Your task to perform on an android device: Play the last video I watched on Youtube Image 0: 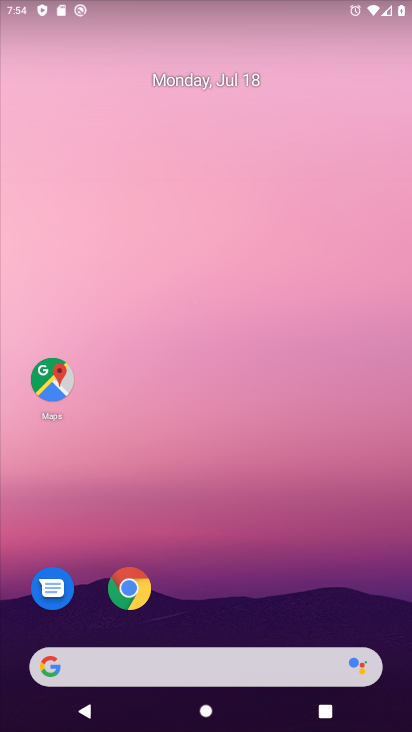
Step 0: drag from (201, 614) to (205, 70)
Your task to perform on an android device: Play the last video I watched on Youtube Image 1: 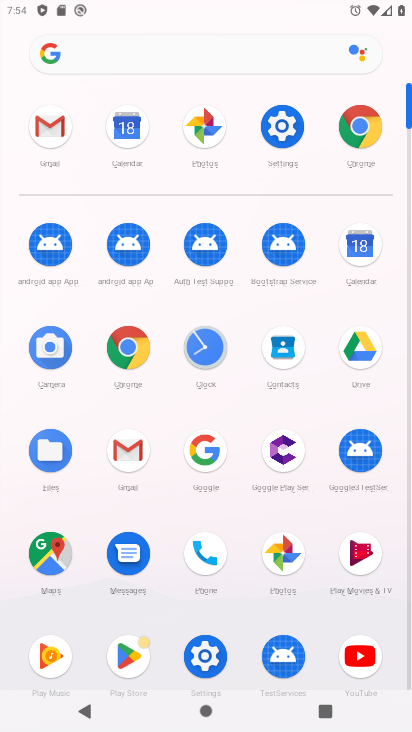
Step 1: click (352, 648)
Your task to perform on an android device: Play the last video I watched on Youtube Image 2: 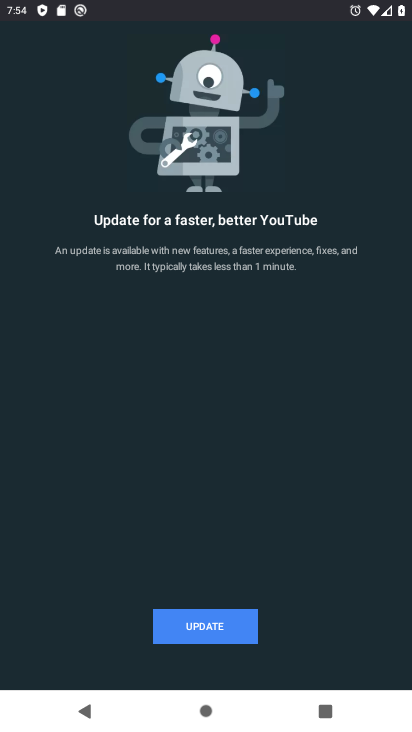
Step 2: click (232, 634)
Your task to perform on an android device: Play the last video I watched on Youtube Image 3: 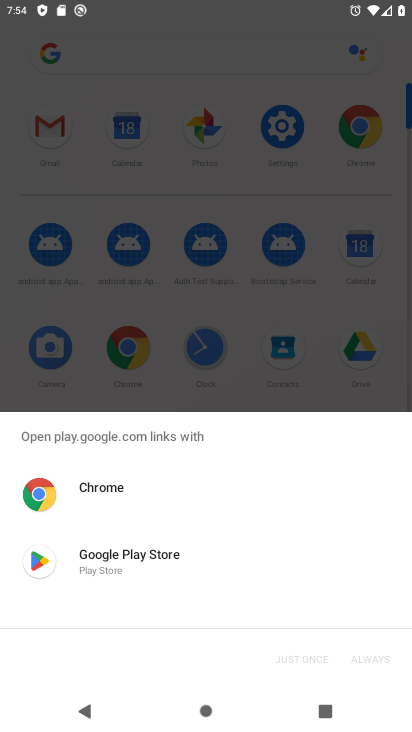
Step 3: click (110, 547)
Your task to perform on an android device: Play the last video I watched on Youtube Image 4: 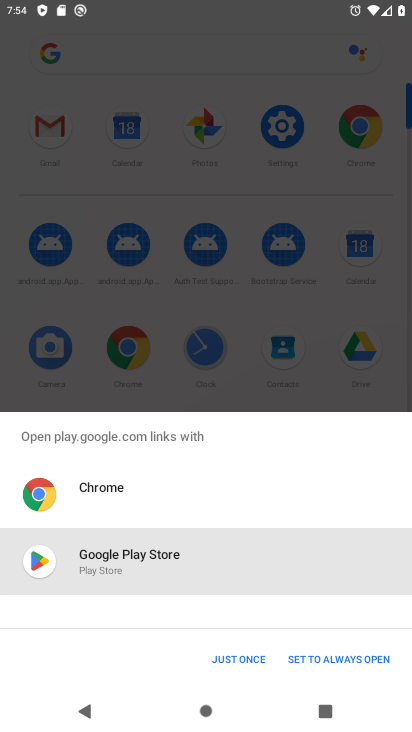
Step 4: click (237, 661)
Your task to perform on an android device: Play the last video I watched on Youtube Image 5: 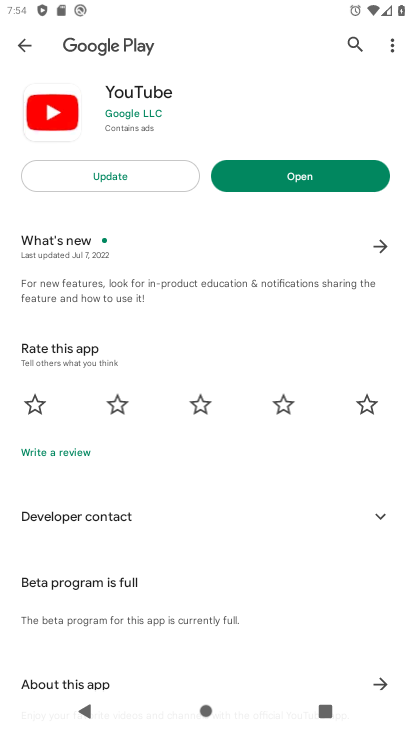
Step 5: click (147, 176)
Your task to perform on an android device: Play the last video I watched on Youtube Image 6: 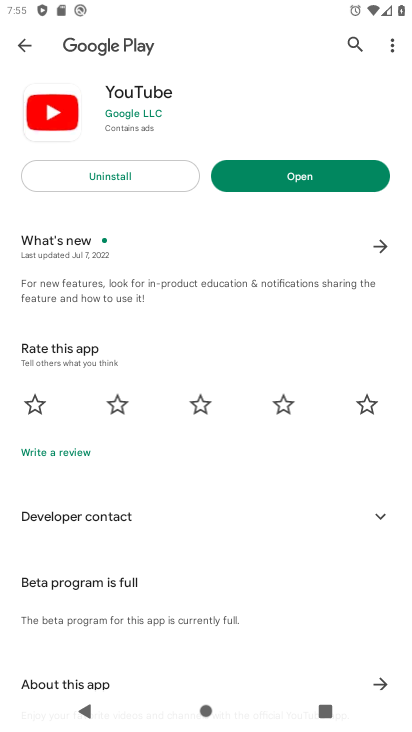
Step 6: click (312, 181)
Your task to perform on an android device: Play the last video I watched on Youtube Image 7: 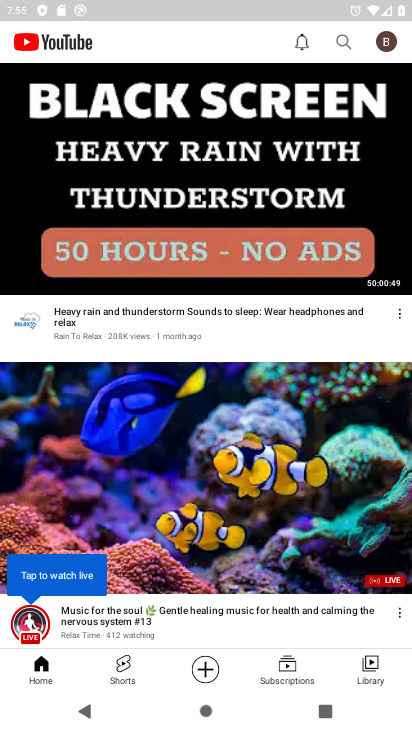
Step 7: click (372, 670)
Your task to perform on an android device: Play the last video I watched on Youtube Image 8: 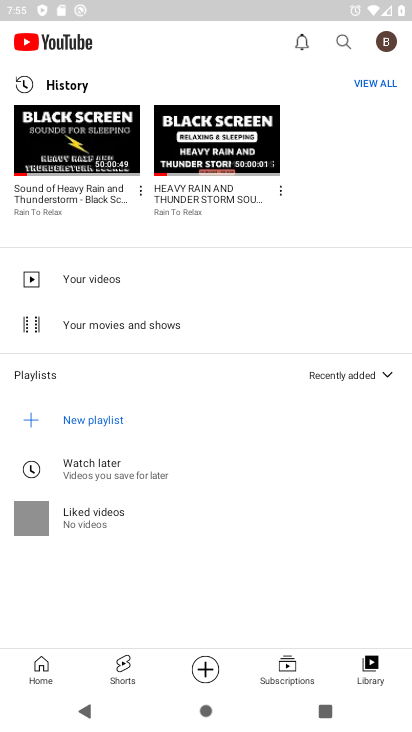
Step 8: click (75, 136)
Your task to perform on an android device: Play the last video I watched on Youtube Image 9: 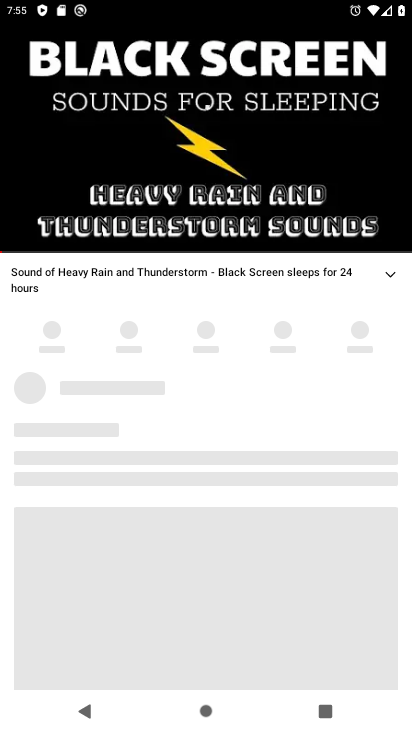
Step 9: task complete